Your task to perform on an android device: Look up the best rated headphones on Aliexpress Image 0: 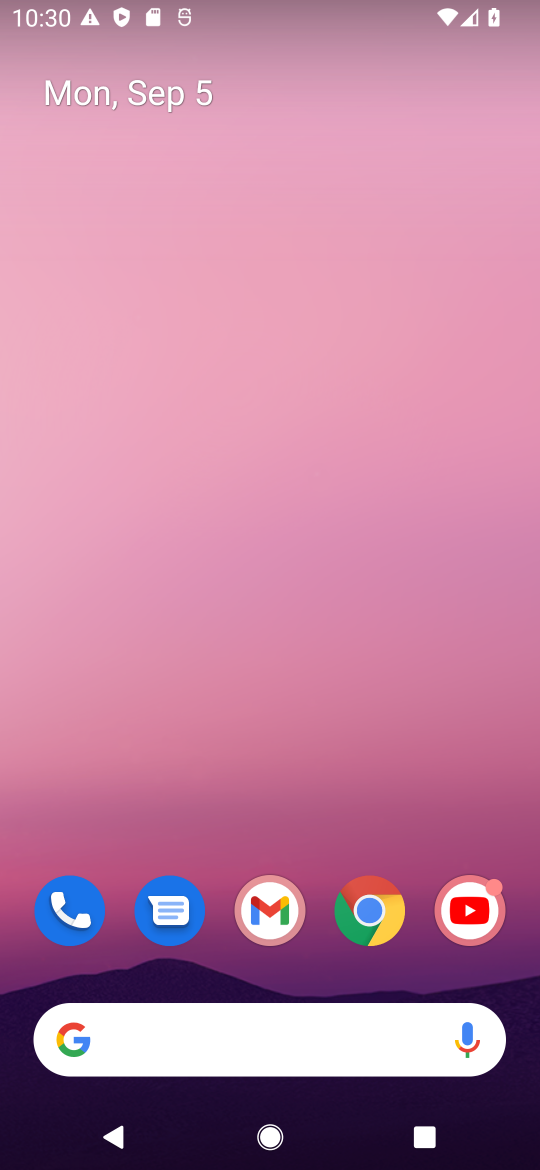
Step 0: click (367, 887)
Your task to perform on an android device: Look up the best rated headphones on Aliexpress Image 1: 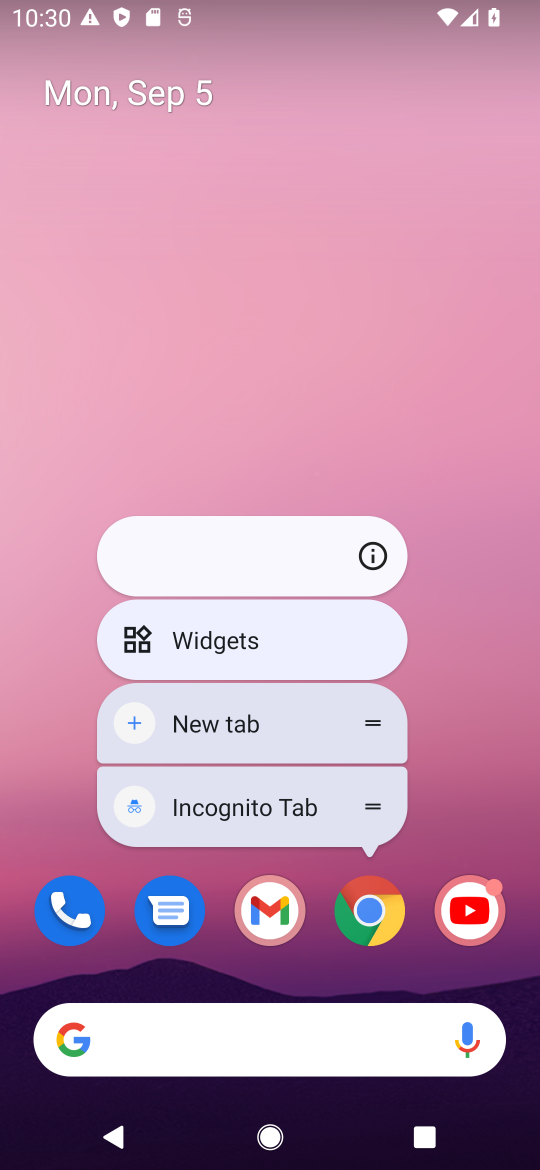
Step 1: click (352, 931)
Your task to perform on an android device: Look up the best rated headphones on Aliexpress Image 2: 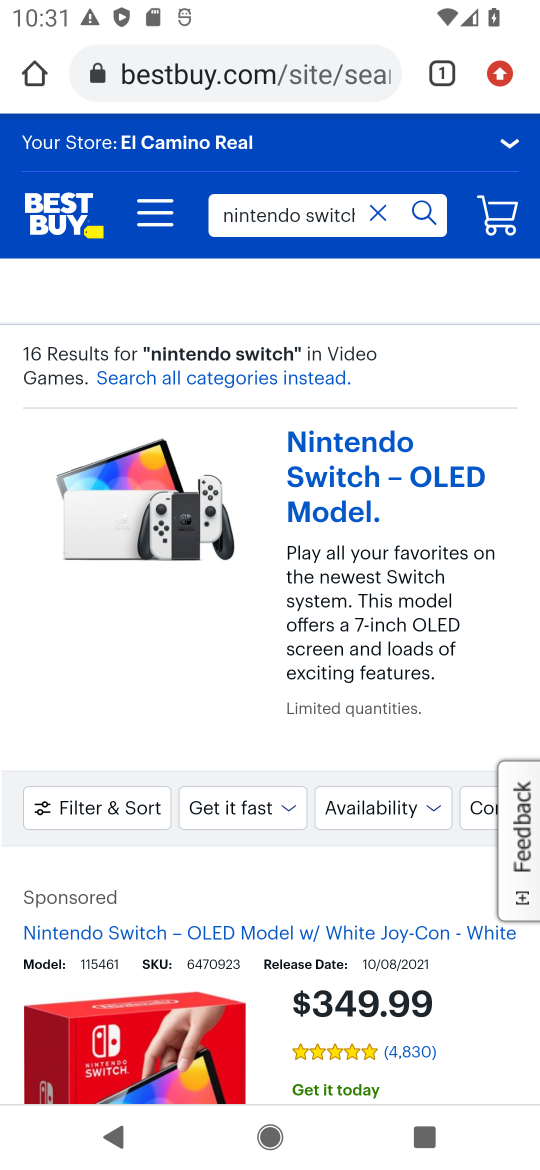
Step 2: click (176, 80)
Your task to perform on an android device: Look up the best rated headphones on Aliexpress Image 3: 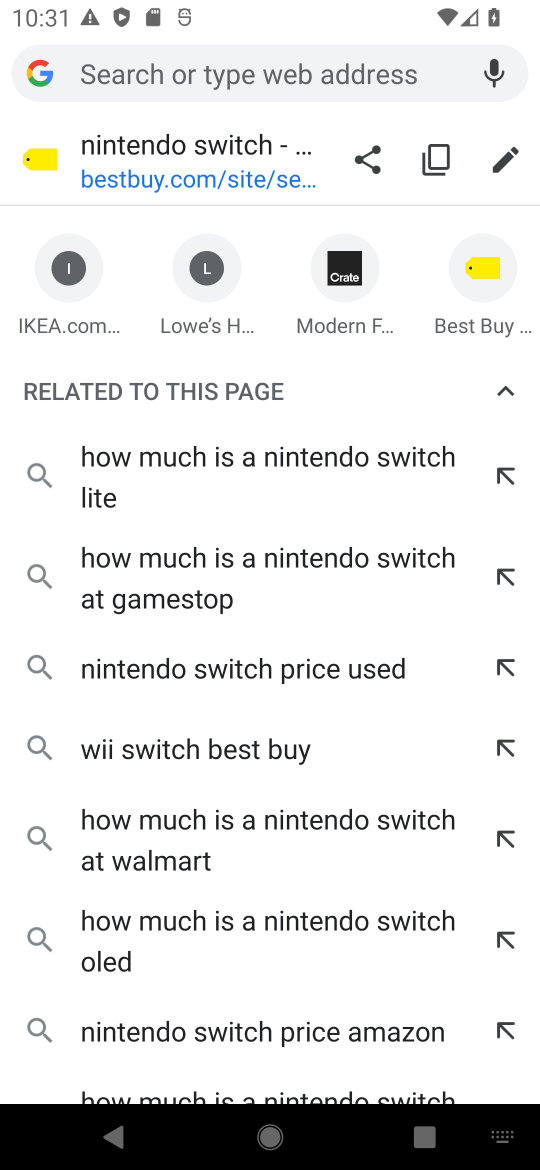
Step 3: type "aliexpress"
Your task to perform on an android device: Look up the best rated headphones on Aliexpress Image 4: 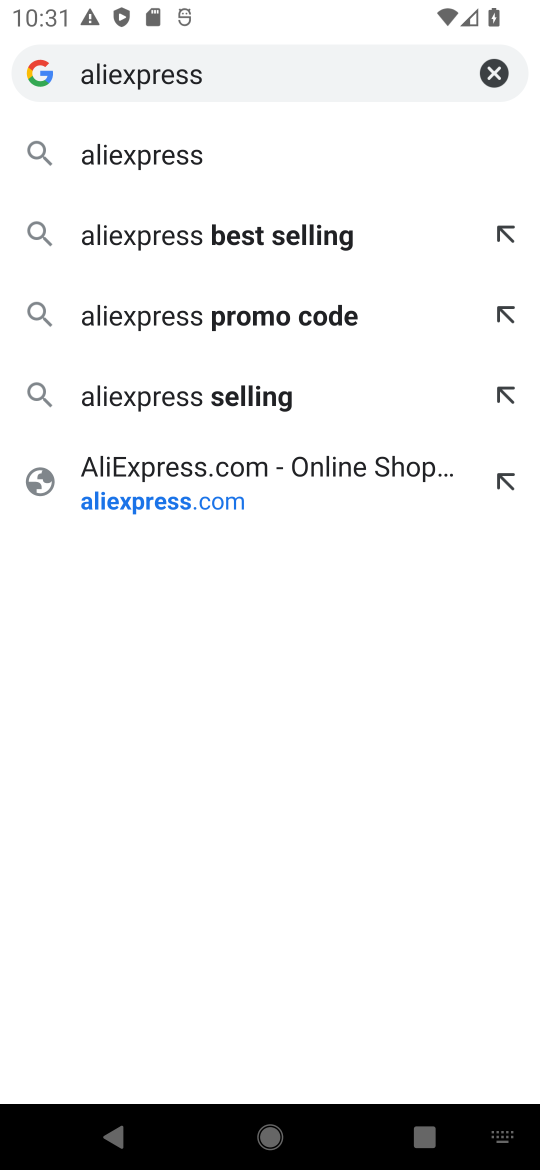
Step 4: click (245, 476)
Your task to perform on an android device: Look up the best rated headphones on Aliexpress Image 5: 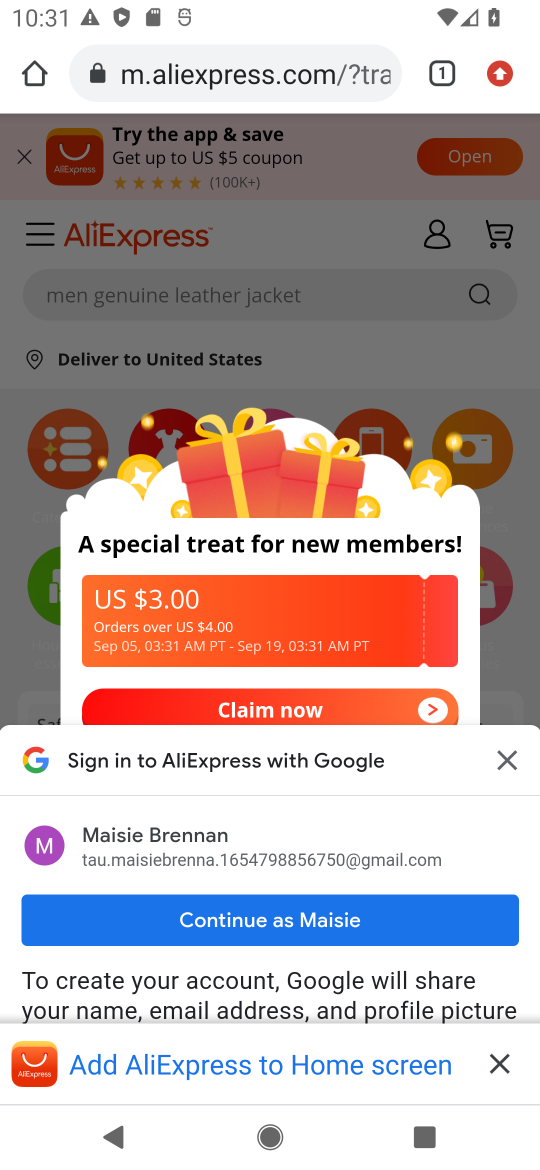
Step 5: click (271, 301)
Your task to perform on an android device: Look up the best rated headphones on Aliexpress Image 6: 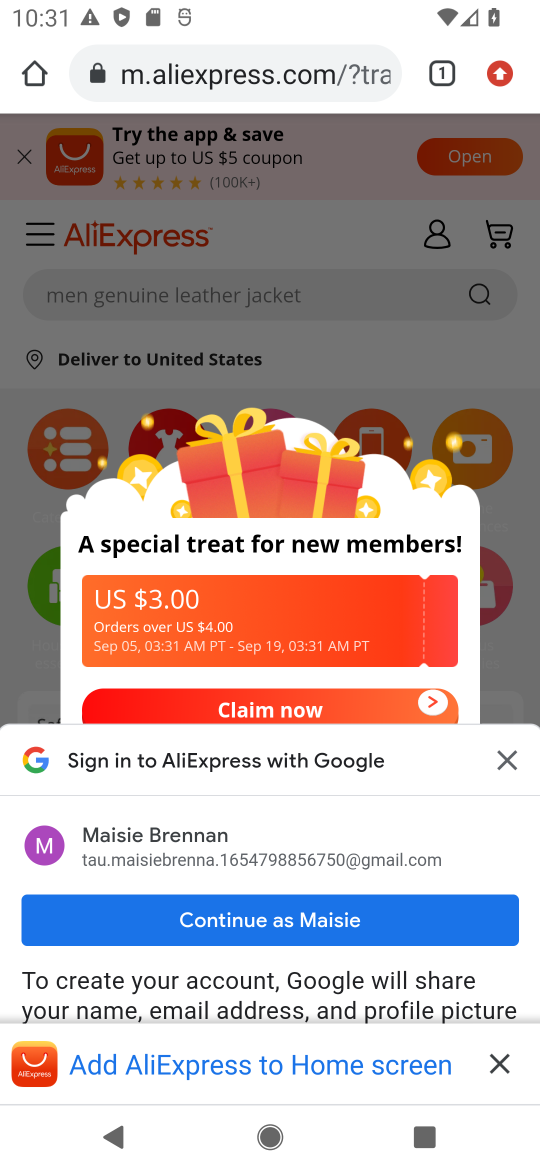
Step 6: click (506, 766)
Your task to perform on an android device: Look up the best rated headphones on Aliexpress Image 7: 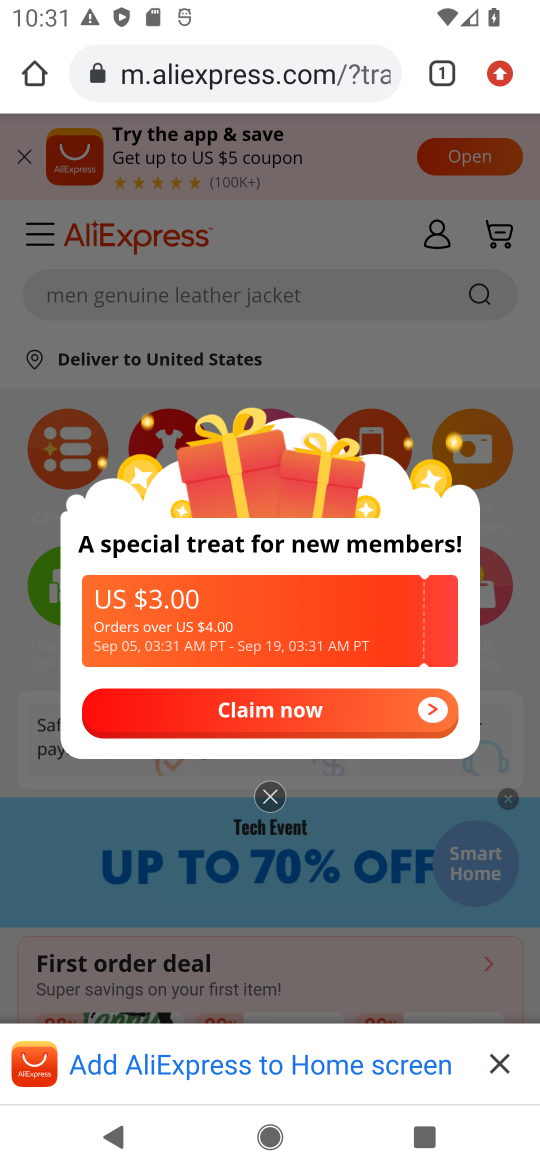
Step 7: click (286, 799)
Your task to perform on an android device: Look up the best rated headphones on Aliexpress Image 8: 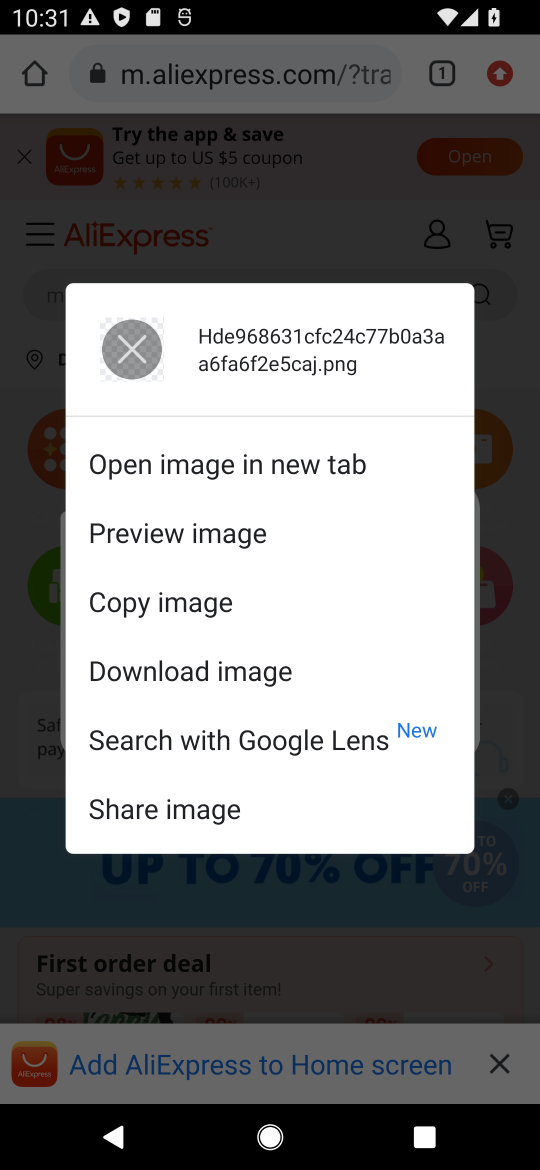
Step 8: click (362, 222)
Your task to perform on an android device: Look up the best rated headphones on Aliexpress Image 9: 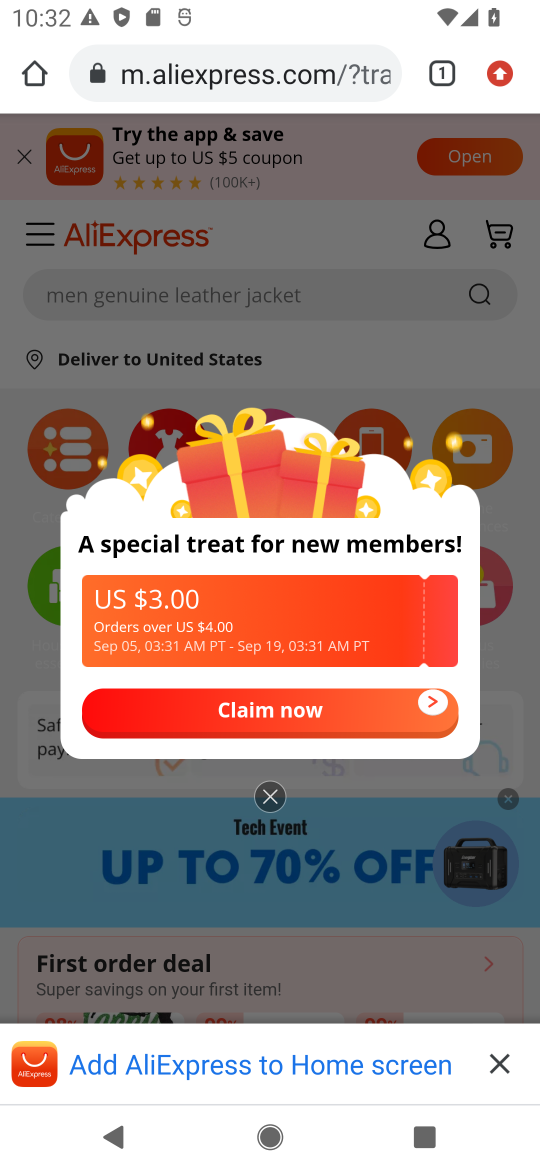
Step 9: click (272, 787)
Your task to perform on an android device: Look up the best rated headphones on Aliexpress Image 10: 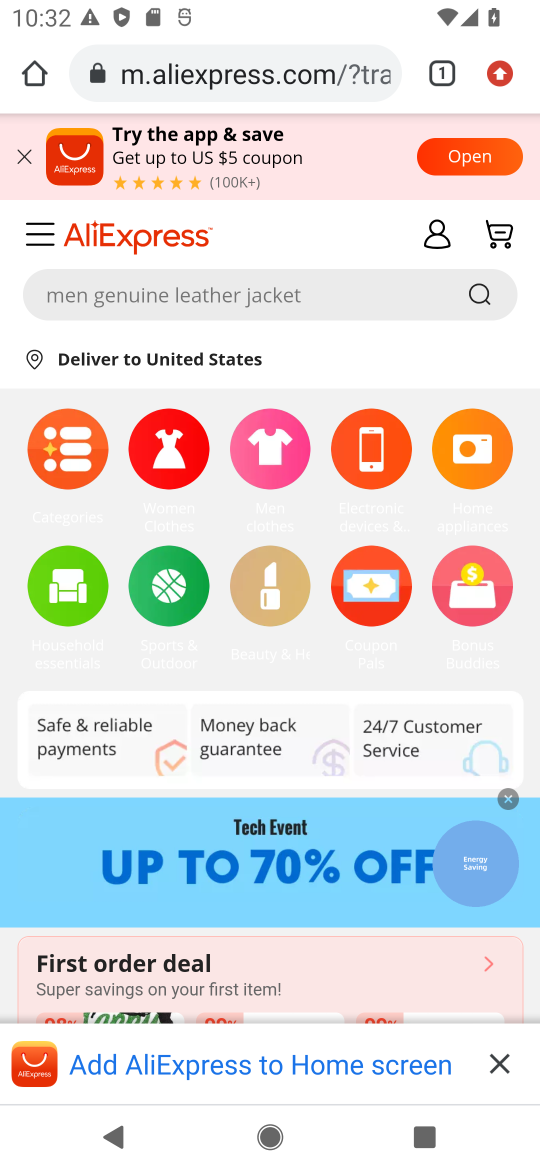
Step 10: click (298, 306)
Your task to perform on an android device: Look up the best rated headphones on Aliexpress Image 11: 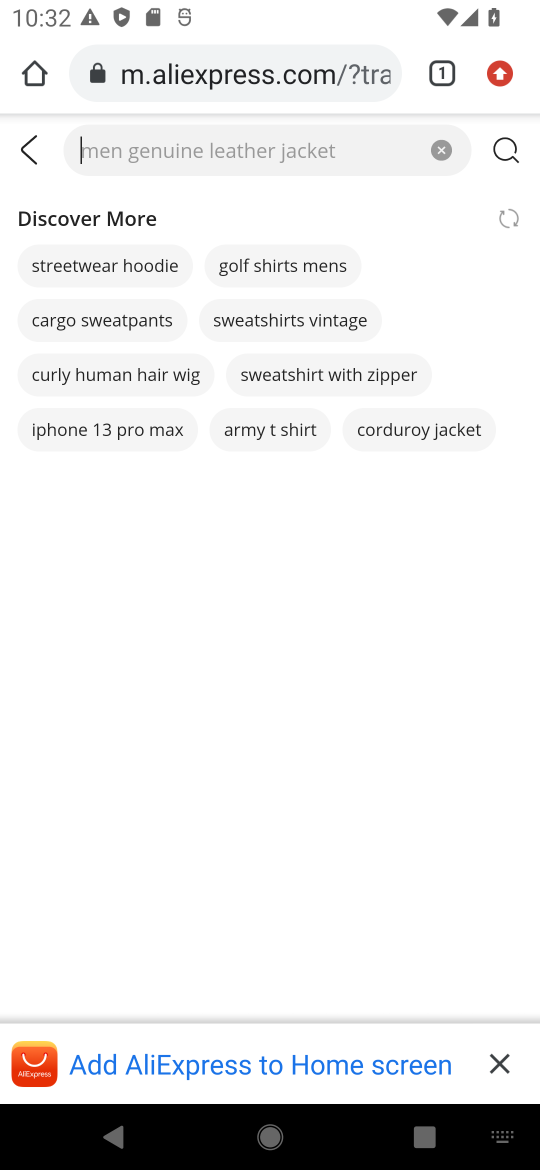
Step 11: type "best rated headphones"
Your task to perform on an android device: Look up the best rated headphones on Aliexpress Image 12: 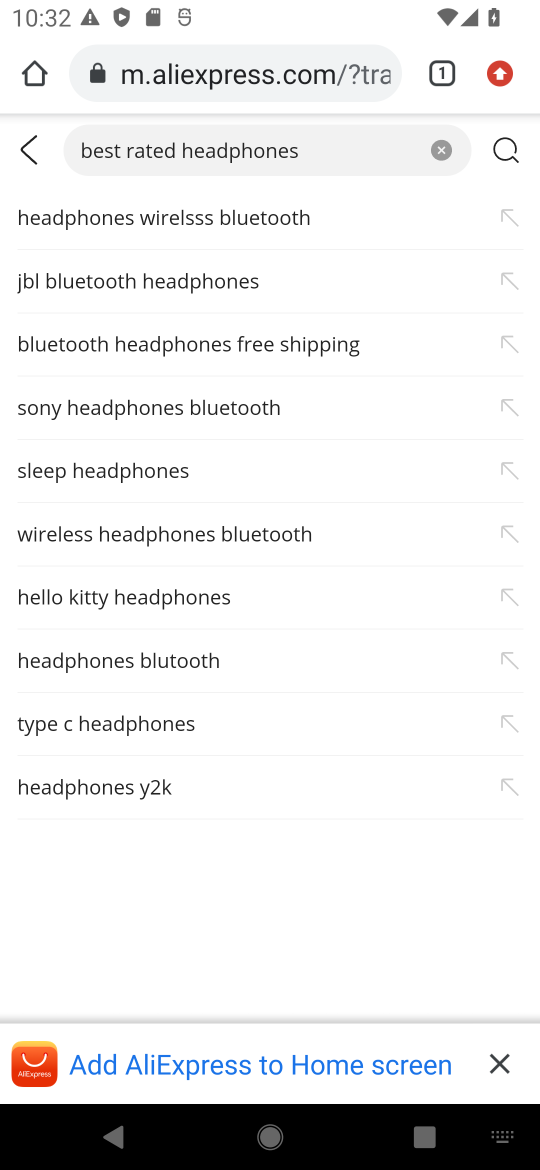
Step 12: press enter
Your task to perform on an android device: Look up the best rated headphones on Aliexpress Image 13: 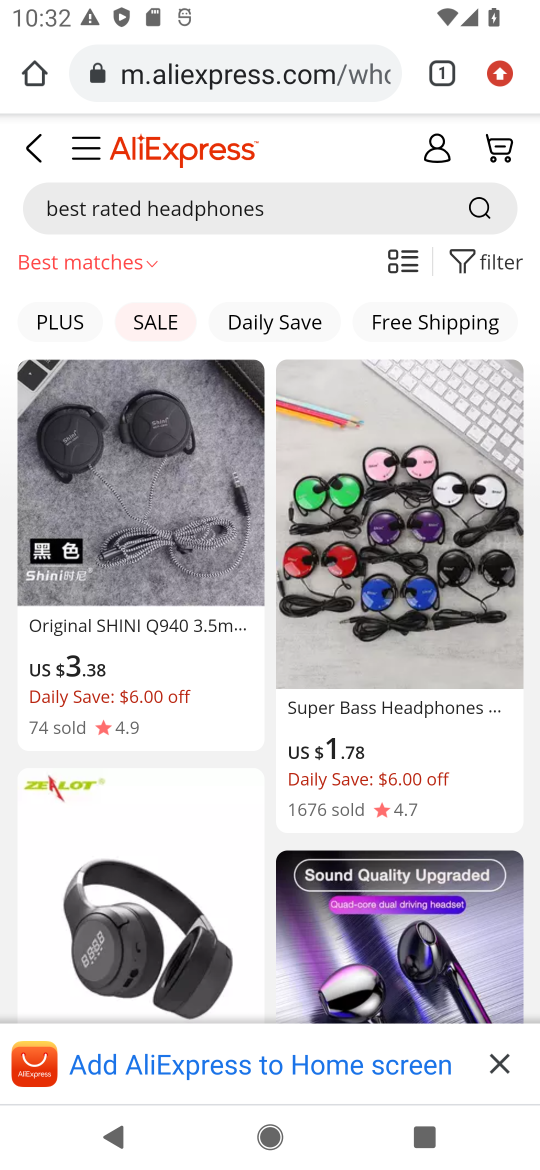
Step 13: task complete